Your task to perform on an android device: Open Reddit.com Image 0: 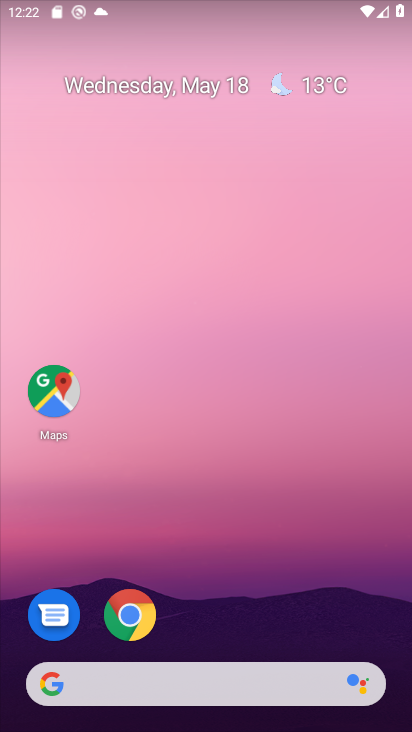
Step 0: drag from (395, 662) to (396, 302)
Your task to perform on an android device: Open Reddit.com Image 1: 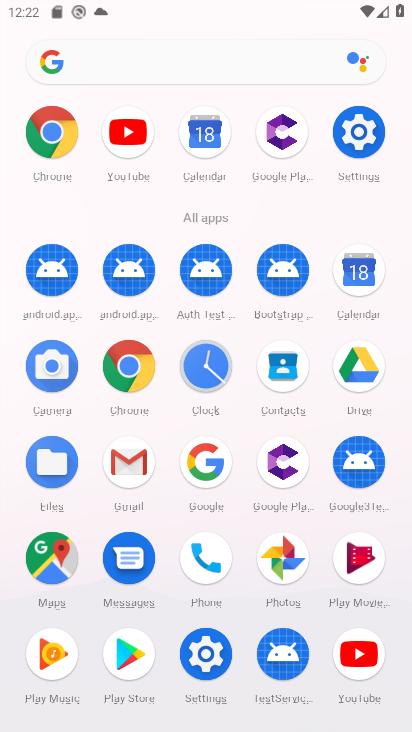
Step 1: click (129, 356)
Your task to perform on an android device: Open Reddit.com Image 2: 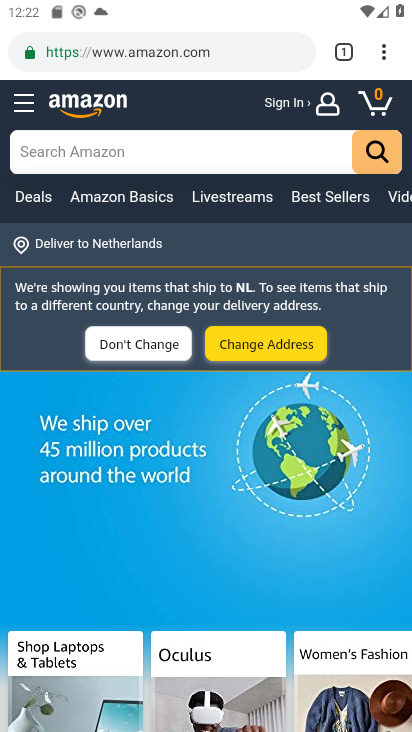
Step 2: type "Reddit.com"
Your task to perform on an android device: Open Reddit.com Image 3: 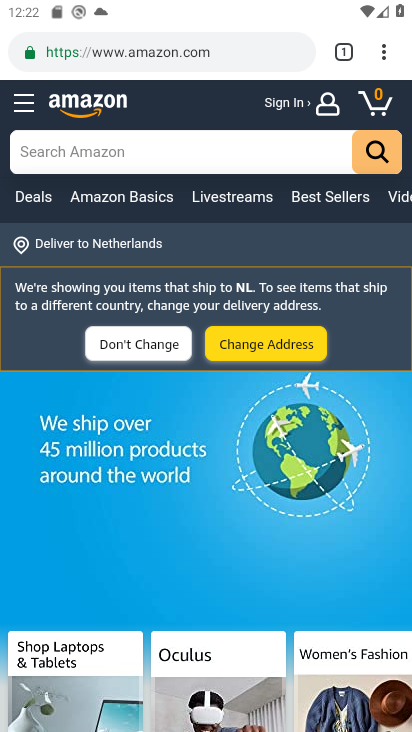
Step 3: click (241, 46)
Your task to perform on an android device: Open Reddit.com Image 4: 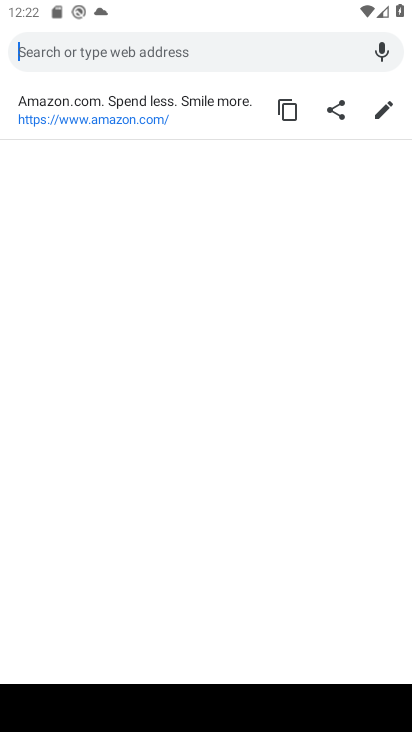
Step 4: type "Reddit.com"
Your task to perform on an android device: Open Reddit.com Image 5: 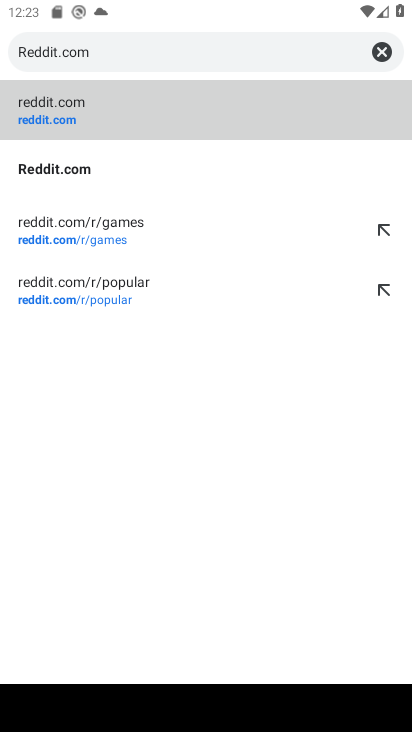
Step 5: click (77, 105)
Your task to perform on an android device: Open Reddit.com Image 6: 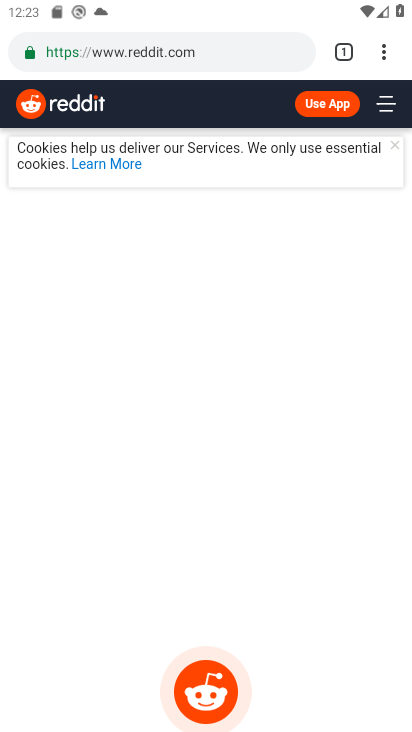
Step 6: task complete